Your task to perform on an android device: change the clock display to analog Image 0: 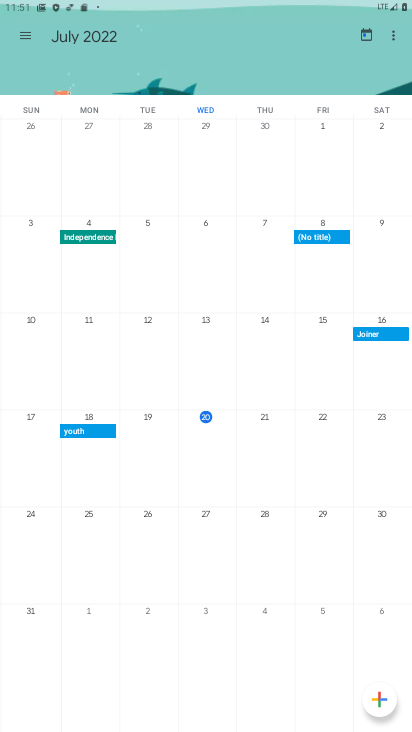
Step 0: click (278, 115)
Your task to perform on an android device: change the clock display to analog Image 1: 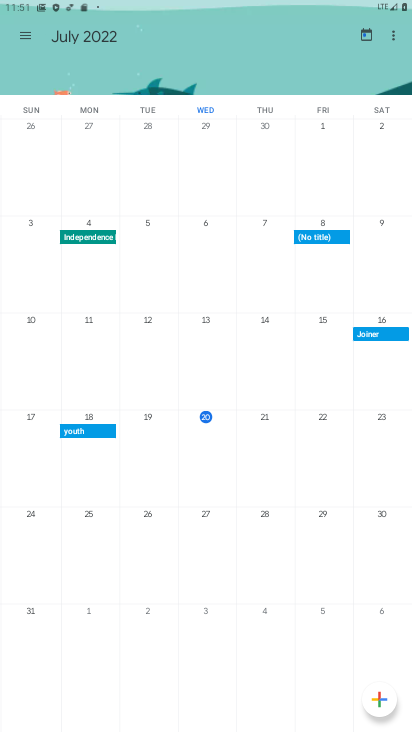
Step 1: press back button
Your task to perform on an android device: change the clock display to analog Image 2: 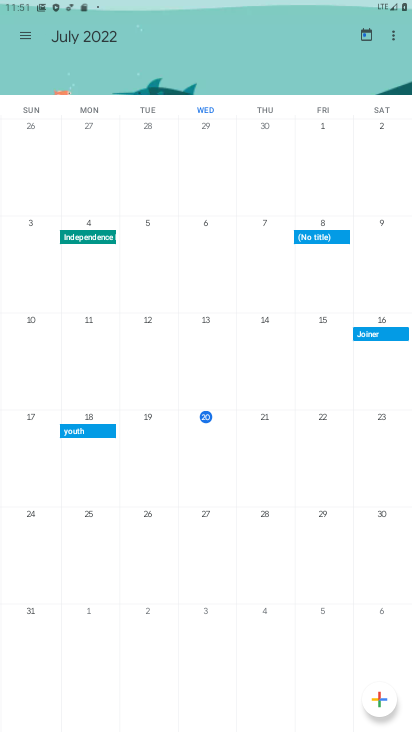
Step 2: press back button
Your task to perform on an android device: change the clock display to analog Image 3: 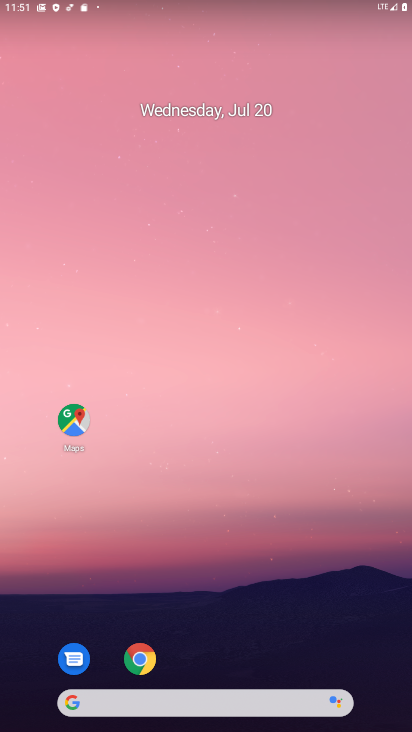
Step 3: drag from (194, 574) to (198, 250)
Your task to perform on an android device: change the clock display to analog Image 4: 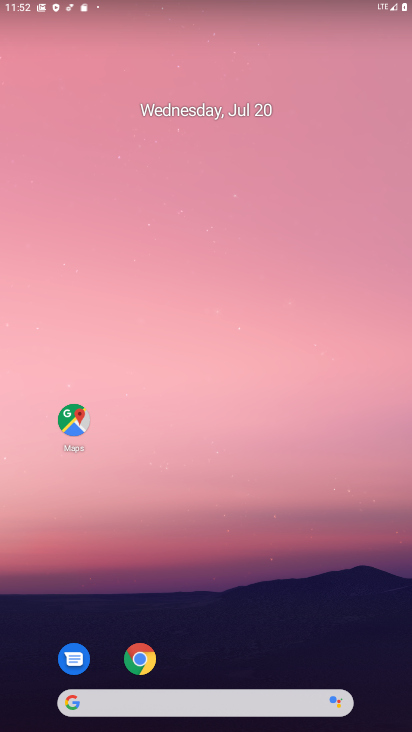
Step 4: drag from (233, 629) to (166, 147)
Your task to perform on an android device: change the clock display to analog Image 5: 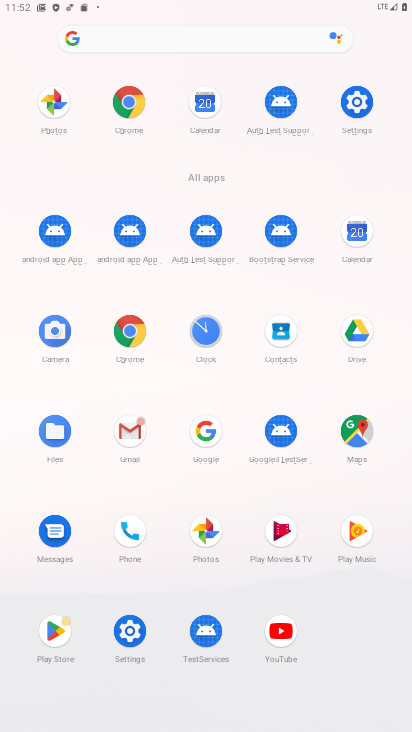
Step 5: click (208, 334)
Your task to perform on an android device: change the clock display to analog Image 6: 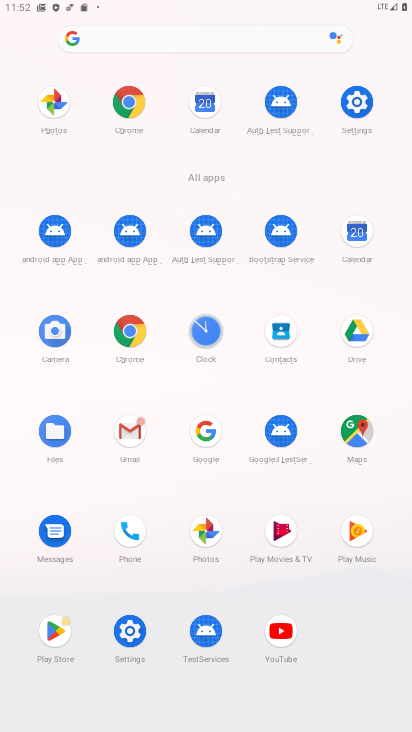
Step 6: click (207, 333)
Your task to perform on an android device: change the clock display to analog Image 7: 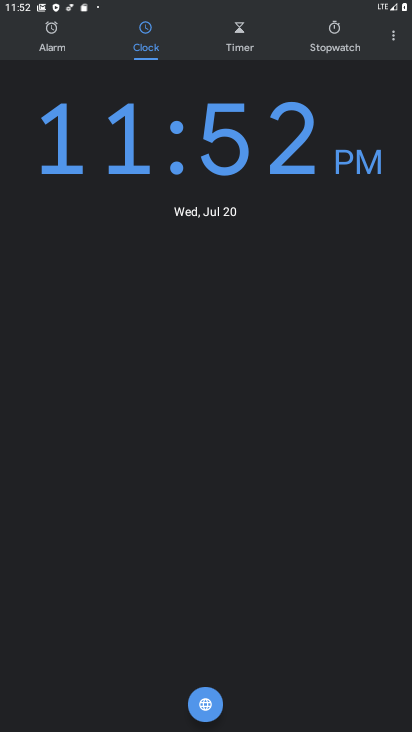
Step 7: click (386, 36)
Your task to perform on an android device: change the clock display to analog Image 8: 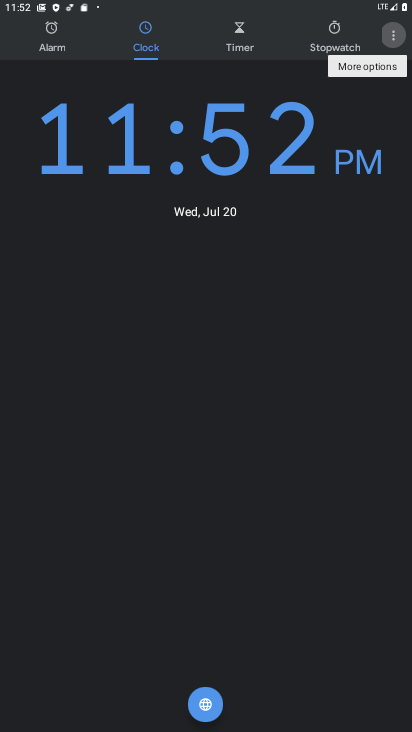
Step 8: click (393, 40)
Your task to perform on an android device: change the clock display to analog Image 9: 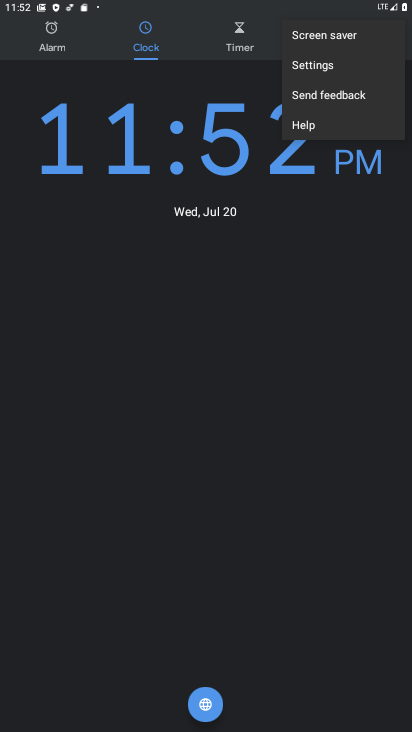
Step 9: click (313, 70)
Your task to perform on an android device: change the clock display to analog Image 10: 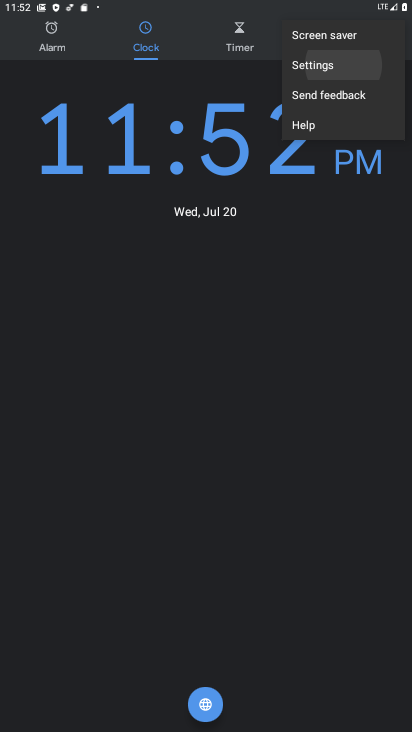
Step 10: click (312, 69)
Your task to perform on an android device: change the clock display to analog Image 11: 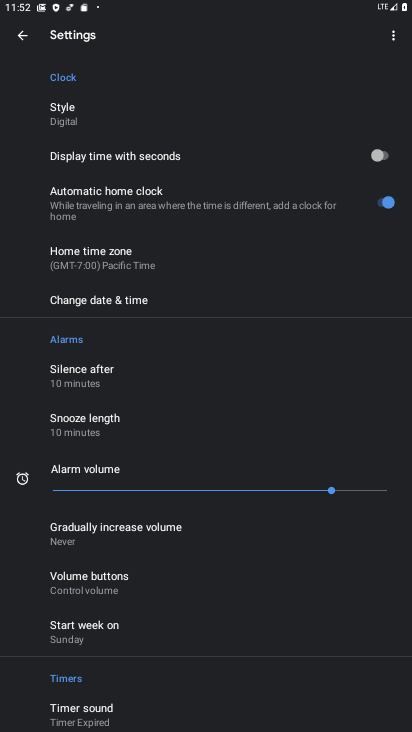
Step 11: click (93, 302)
Your task to perform on an android device: change the clock display to analog Image 12: 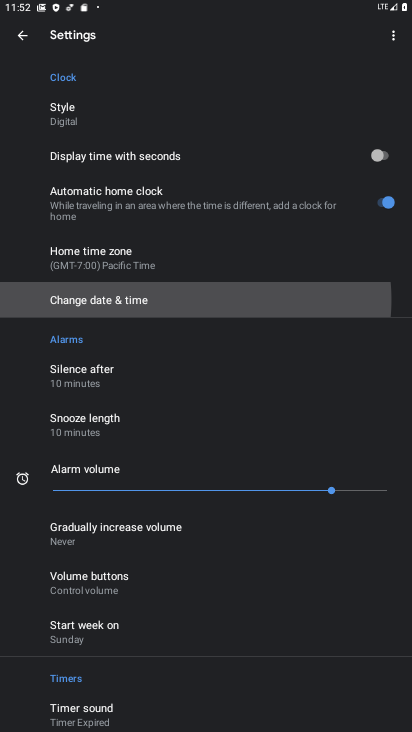
Step 12: click (93, 302)
Your task to perform on an android device: change the clock display to analog Image 13: 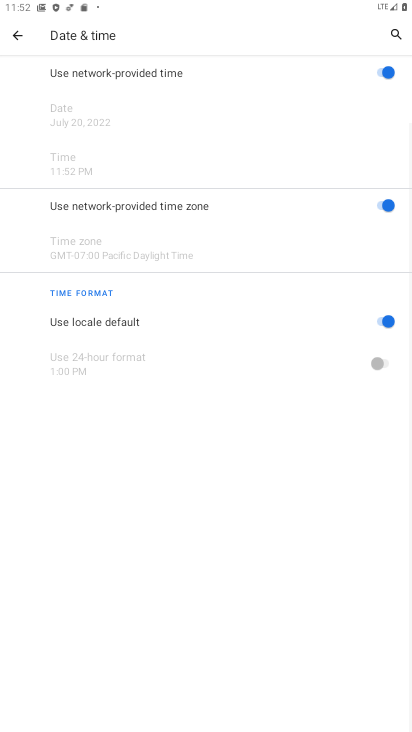
Step 13: click (14, 37)
Your task to perform on an android device: change the clock display to analog Image 14: 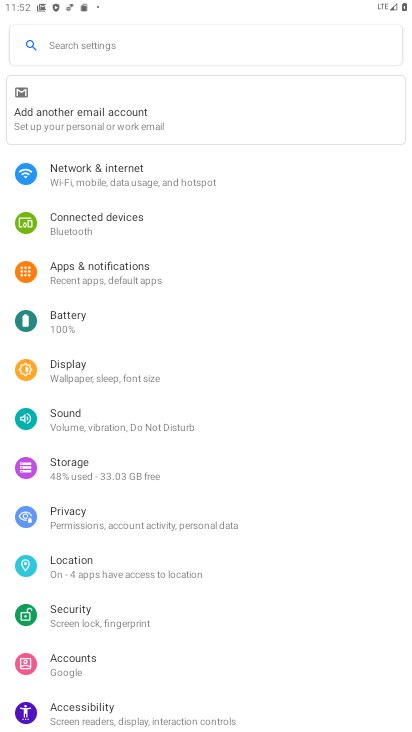
Step 14: press back button
Your task to perform on an android device: change the clock display to analog Image 15: 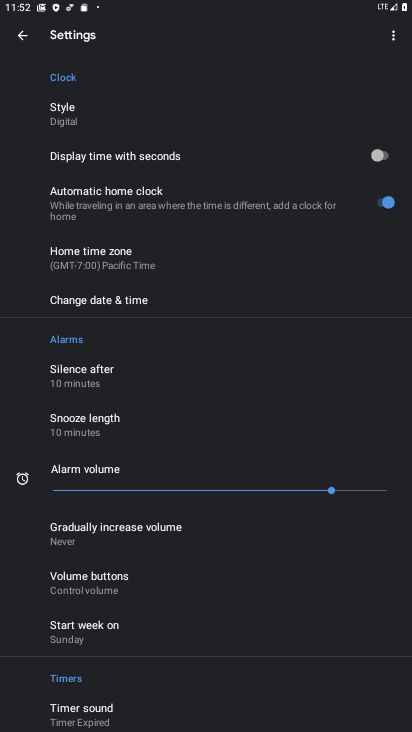
Step 15: click (81, 116)
Your task to perform on an android device: change the clock display to analog Image 16: 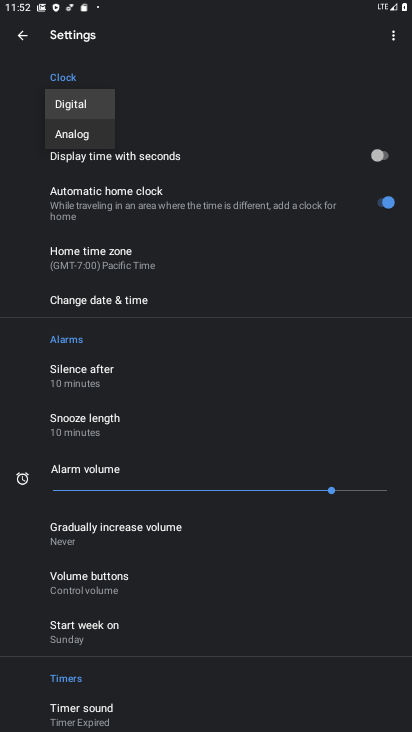
Step 16: click (80, 136)
Your task to perform on an android device: change the clock display to analog Image 17: 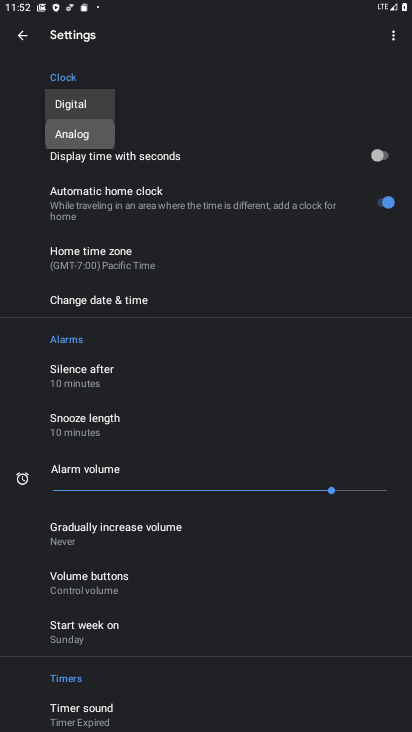
Step 17: click (79, 137)
Your task to perform on an android device: change the clock display to analog Image 18: 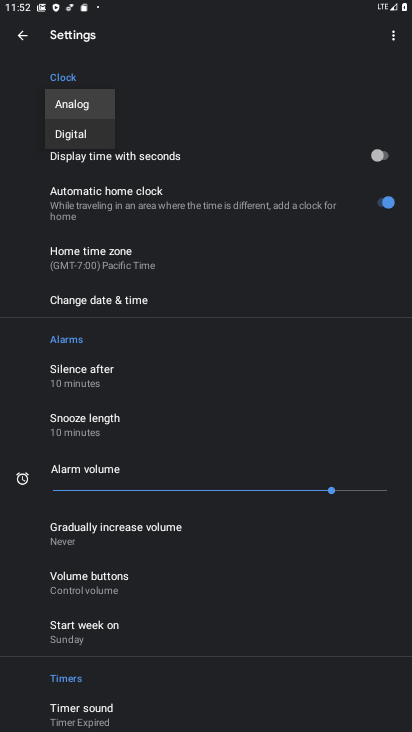
Step 18: task complete